Your task to perform on an android device: Turn on the flashlight Image 0: 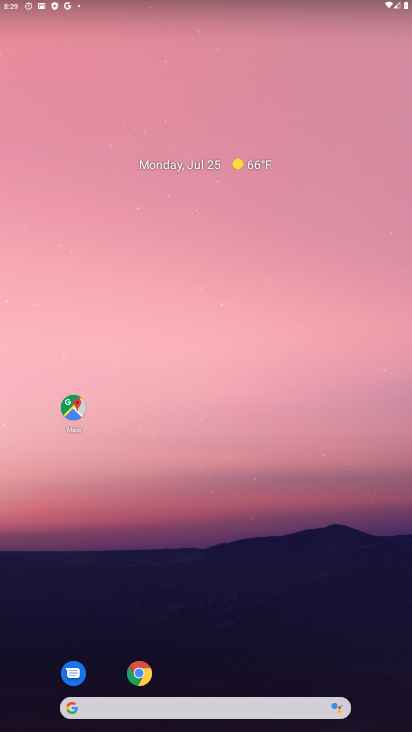
Step 0: press home button
Your task to perform on an android device: Turn on the flashlight Image 1: 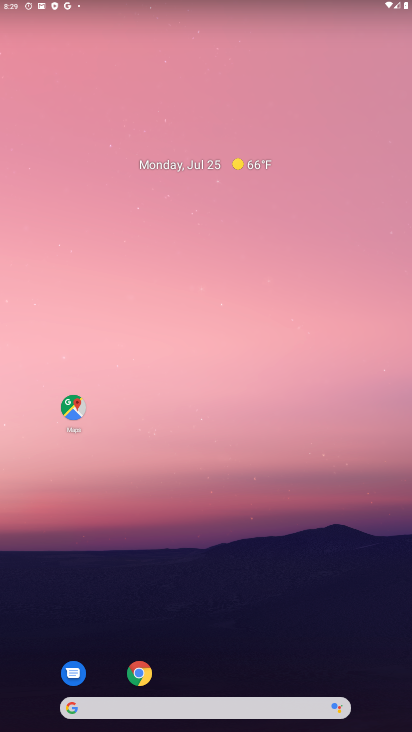
Step 1: click (346, 58)
Your task to perform on an android device: Turn on the flashlight Image 2: 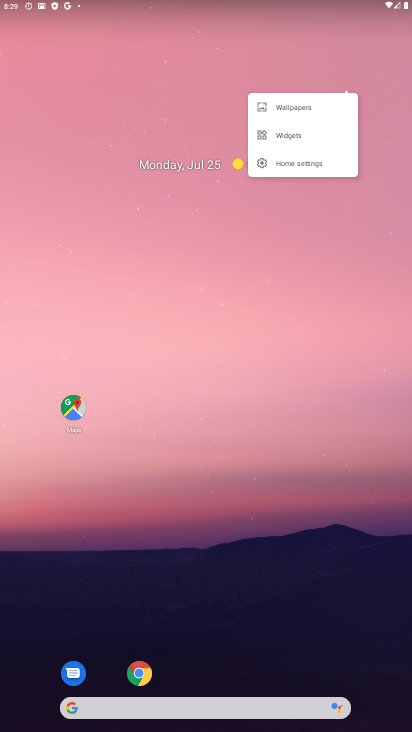
Step 2: drag from (243, 678) to (319, 141)
Your task to perform on an android device: Turn on the flashlight Image 3: 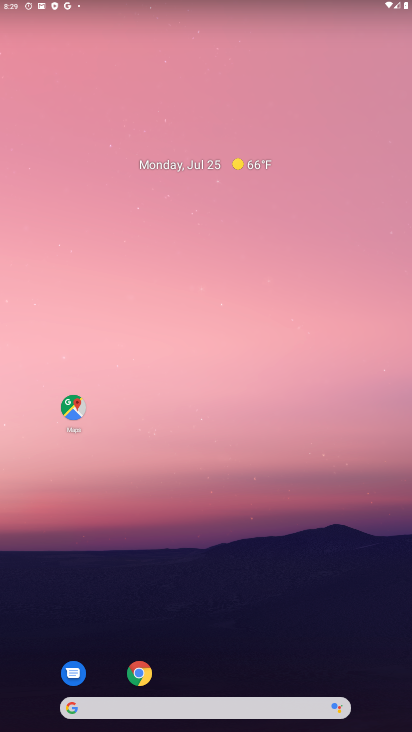
Step 3: press home button
Your task to perform on an android device: Turn on the flashlight Image 4: 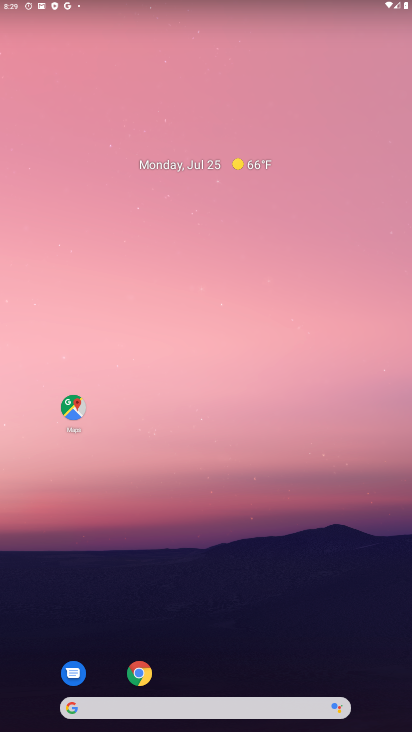
Step 4: drag from (231, 629) to (281, 177)
Your task to perform on an android device: Turn on the flashlight Image 5: 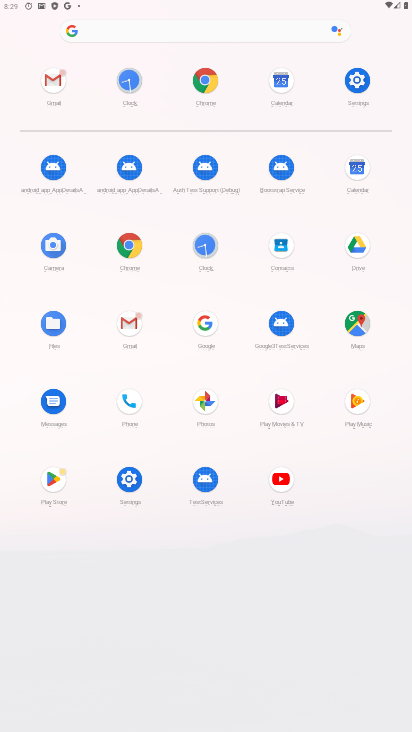
Step 5: click (358, 77)
Your task to perform on an android device: Turn on the flashlight Image 6: 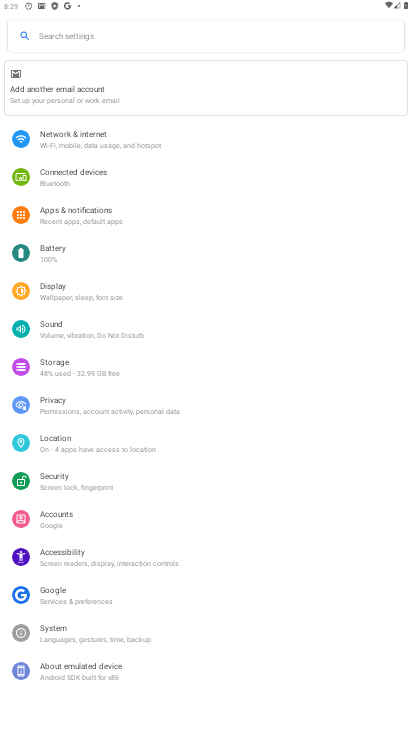
Step 6: click (55, 41)
Your task to perform on an android device: Turn on the flashlight Image 7: 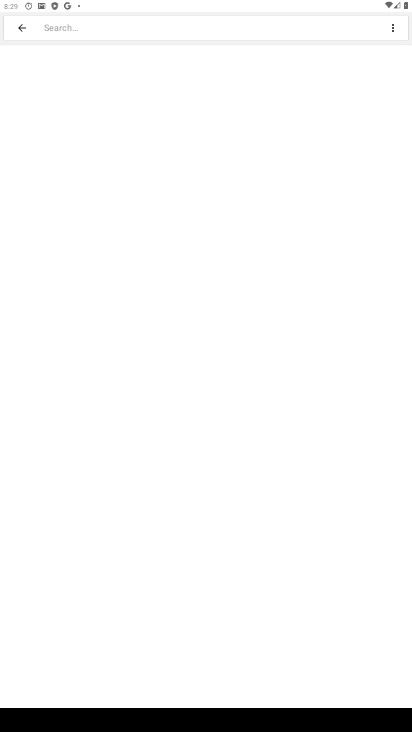
Step 7: type "flashlight"
Your task to perform on an android device: Turn on the flashlight Image 8: 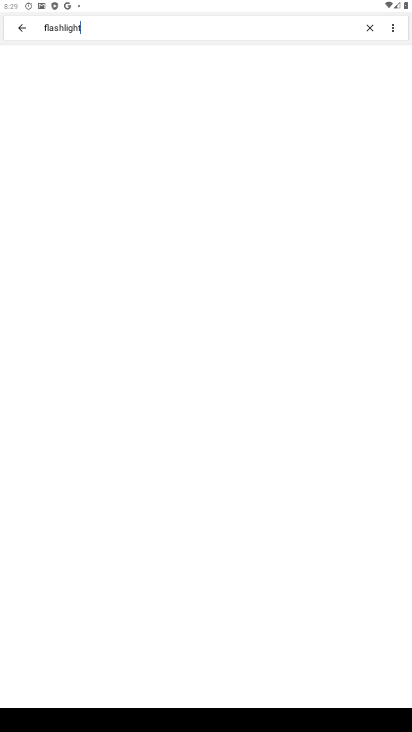
Step 8: type ""
Your task to perform on an android device: Turn on the flashlight Image 9: 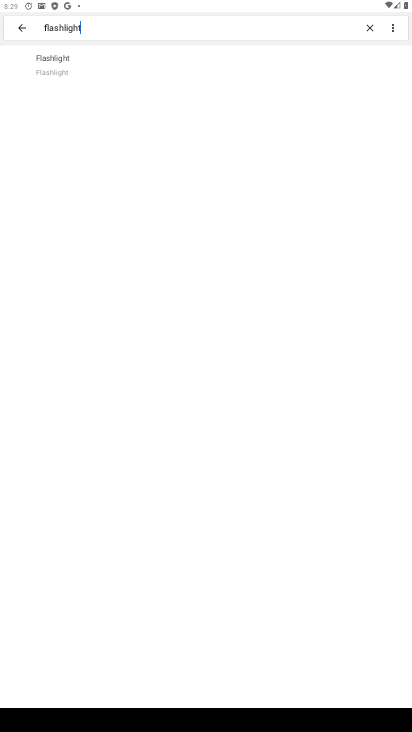
Step 9: click (66, 77)
Your task to perform on an android device: Turn on the flashlight Image 10: 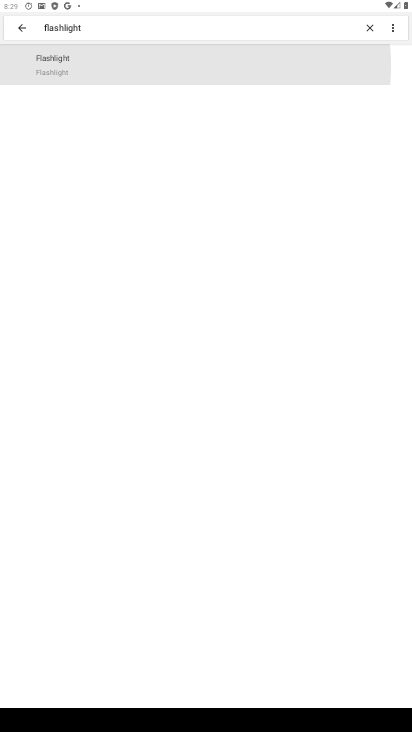
Step 10: click (85, 62)
Your task to perform on an android device: Turn on the flashlight Image 11: 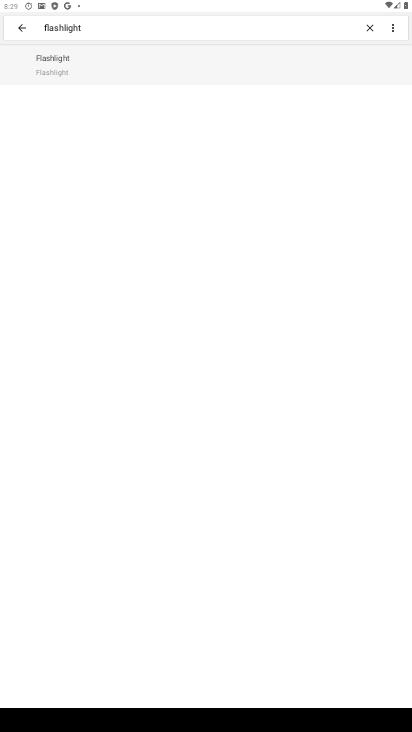
Step 11: click (85, 62)
Your task to perform on an android device: Turn on the flashlight Image 12: 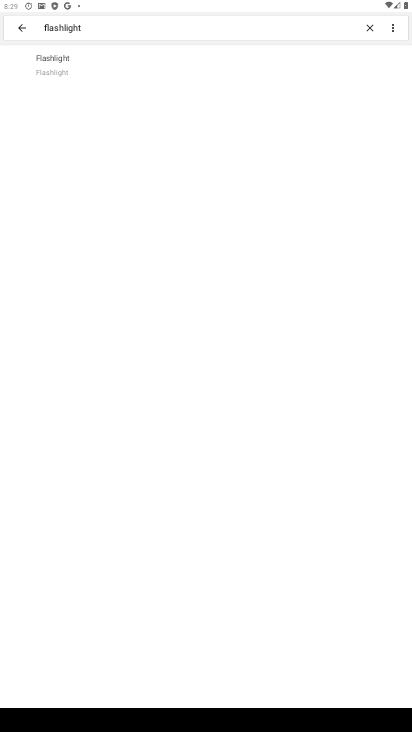
Step 12: click (81, 62)
Your task to perform on an android device: Turn on the flashlight Image 13: 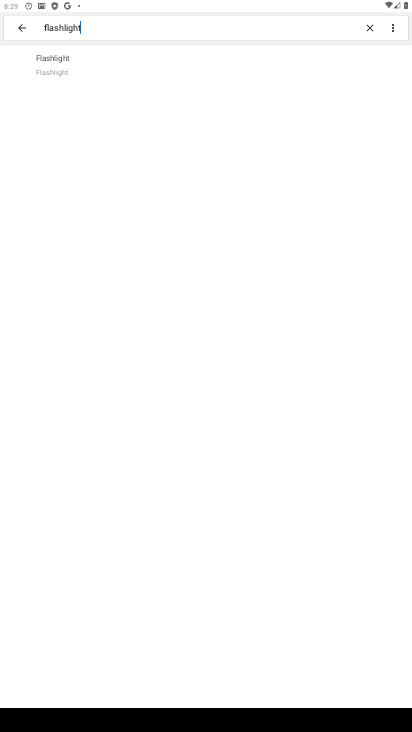
Step 13: task complete